Your task to perform on an android device: turn on the 12-hour format for clock Image 0: 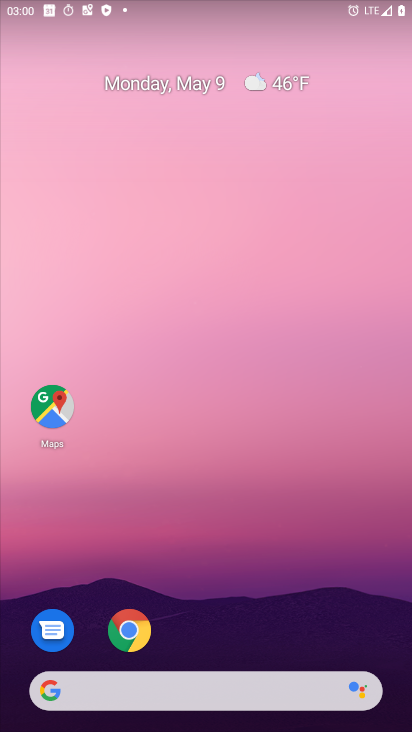
Step 0: drag from (320, 609) to (265, 22)
Your task to perform on an android device: turn on the 12-hour format for clock Image 1: 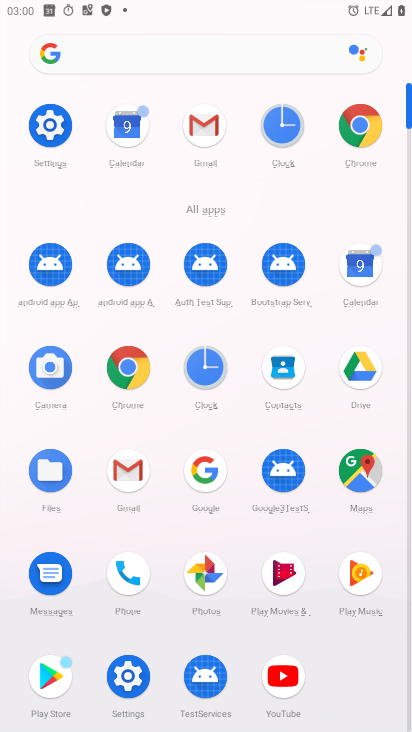
Step 1: click (281, 149)
Your task to perform on an android device: turn on the 12-hour format for clock Image 2: 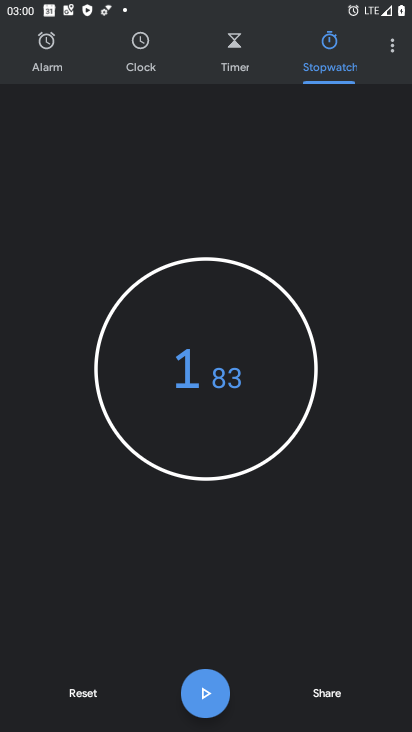
Step 2: click (379, 53)
Your task to perform on an android device: turn on the 12-hour format for clock Image 3: 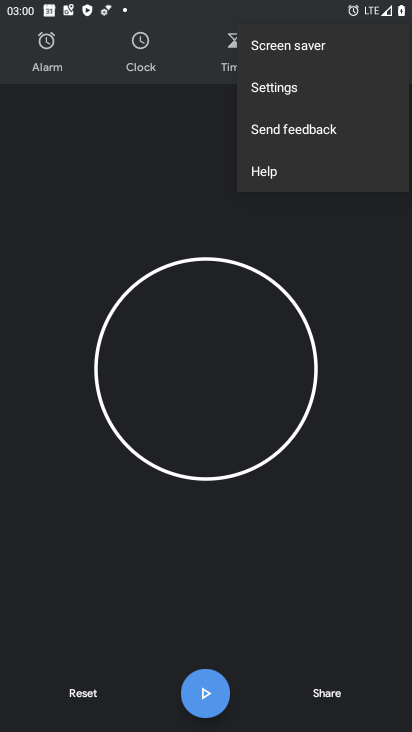
Step 3: click (313, 76)
Your task to perform on an android device: turn on the 12-hour format for clock Image 4: 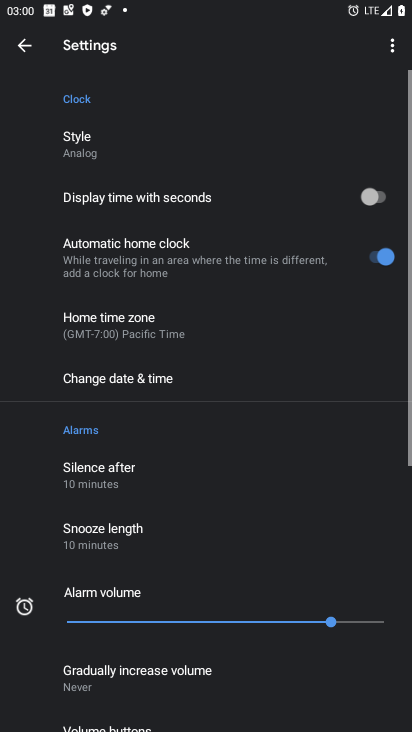
Step 4: drag from (236, 520) to (213, 271)
Your task to perform on an android device: turn on the 12-hour format for clock Image 5: 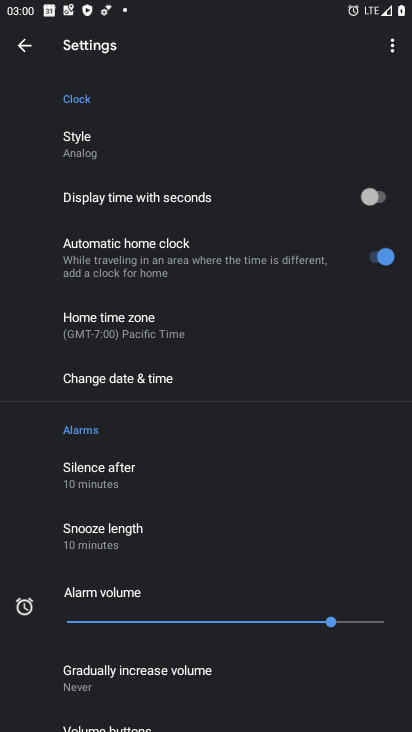
Step 5: click (142, 386)
Your task to perform on an android device: turn on the 12-hour format for clock Image 6: 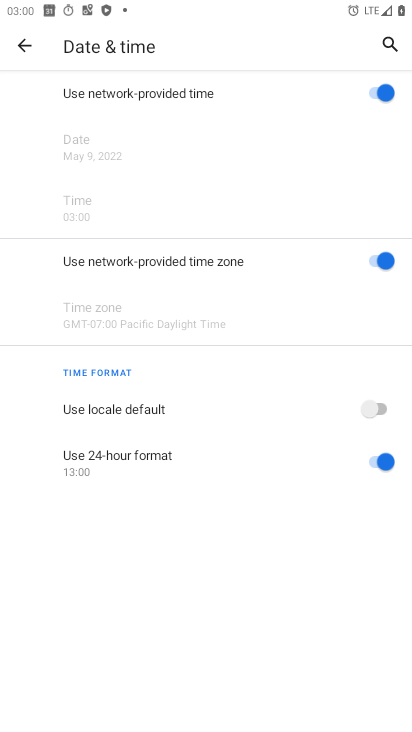
Step 6: click (286, 417)
Your task to perform on an android device: turn on the 12-hour format for clock Image 7: 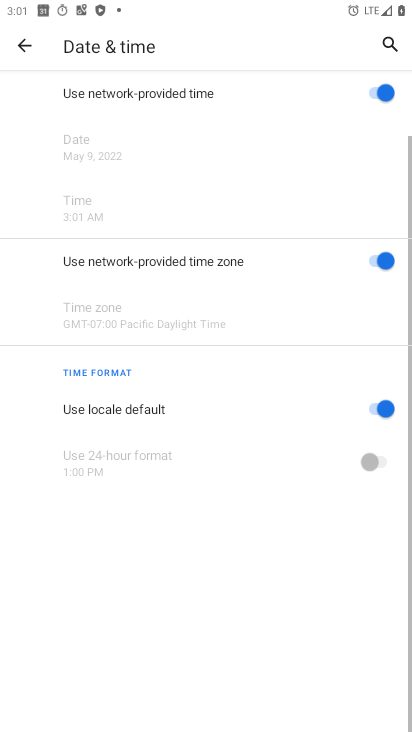
Step 7: click (334, 466)
Your task to perform on an android device: turn on the 12-hour format for clock Image 8: 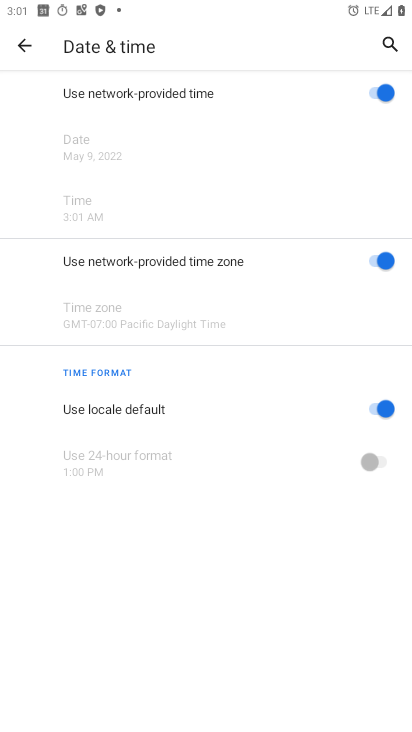
Step 8: click (374, 459)
Your task to perform on an android device: turn on the 12-hour format for clock Image 9: 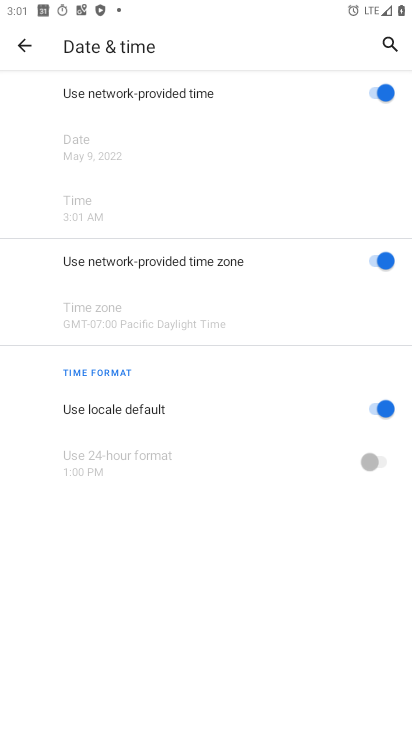
Step 9: click (389, 456)
Your task to perform on an android device: turn on the 12-hour format for clock Image 10: 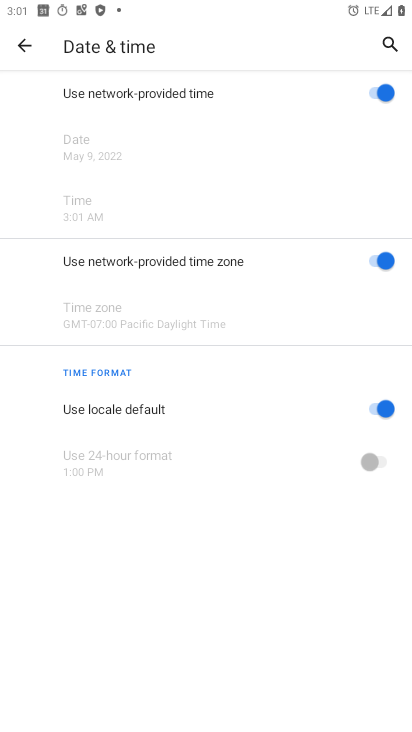
Step 10: click (376, 376)
Your task to perform on an android device: turn on the 12-hour format for clock Image 11: 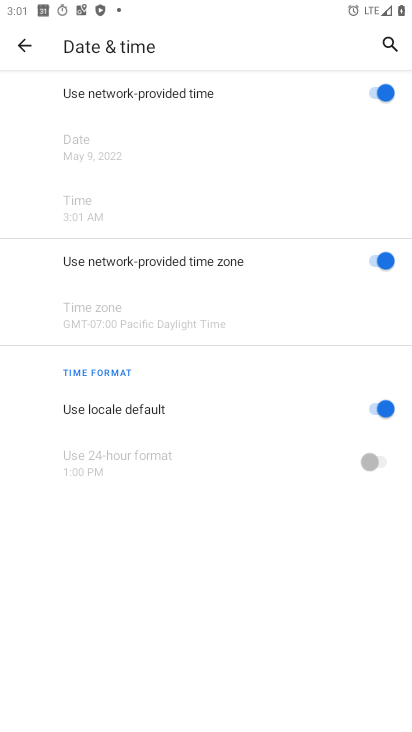
Step 11: click (378, 407)
Your task to perform on an android device: turn on the 12-hour format for clock Image 12: 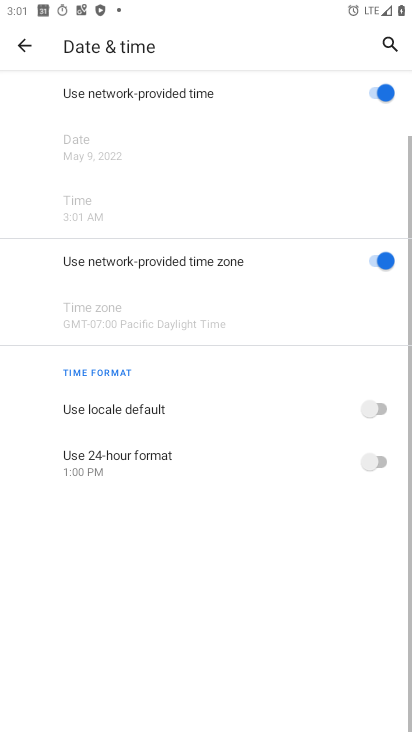
Step 12: click (376, 452)
Your task to perform on an android device: turn on the 12-hour format for clock Image 13: 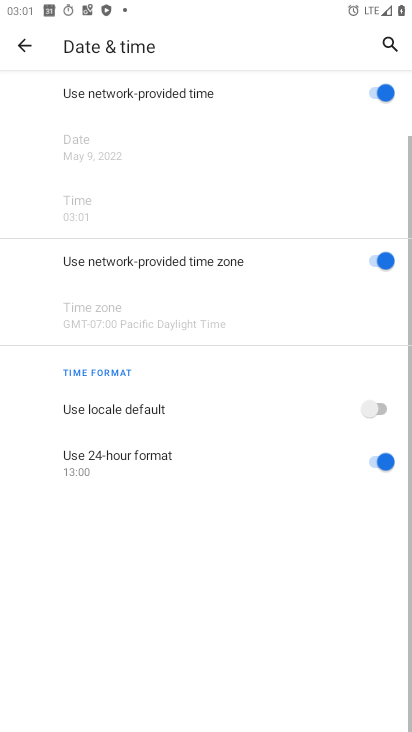
Step 13: task complete